Your task to perform on an android device: Open settings on Google Maps Image 0: 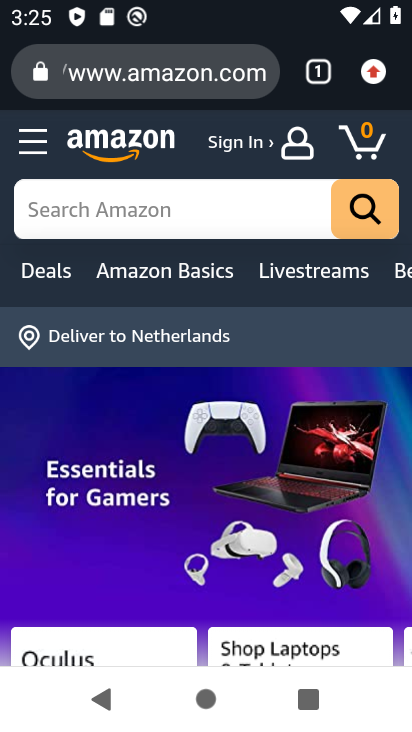
Step 0: click (376, 76)
Your task to perform on an android device: Open settings on Google Maps Image 1: 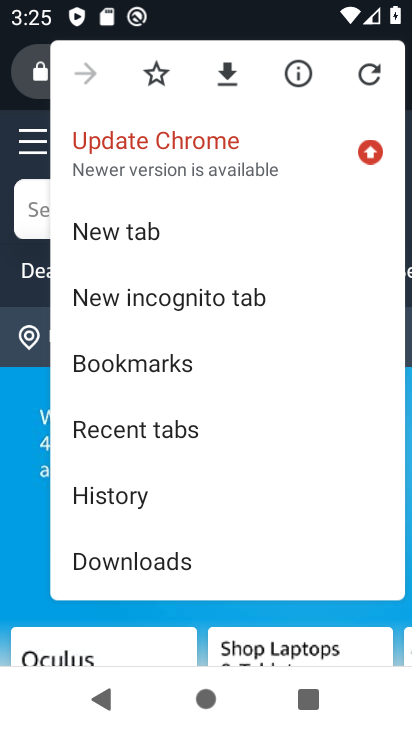
Step 1: drag from (230, 486) to (270, 197)
Your task to perform on an android device: Open settings on Google Maps Image 2: 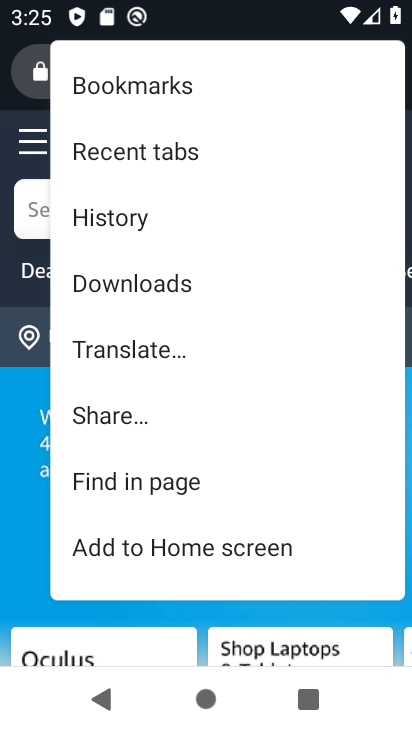
Step 2: drag from (174, 410) to (223, 163)
Your task to perform on an android device: Open settings on Google Maps Image 3: 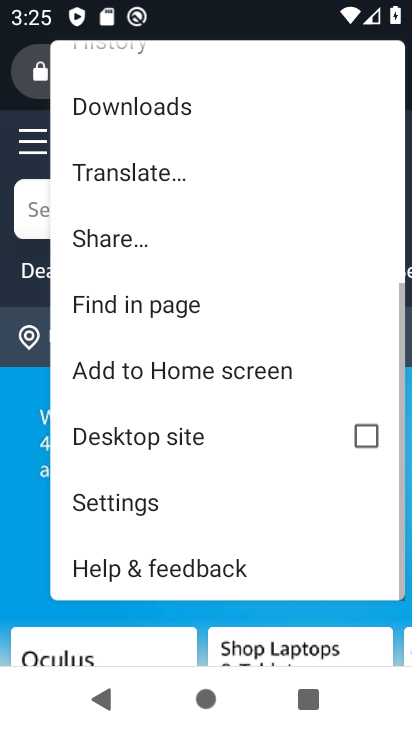
Step 3: click (172, 493)
Your task to perform on an android device: Open settings on Google Maps Image 4: 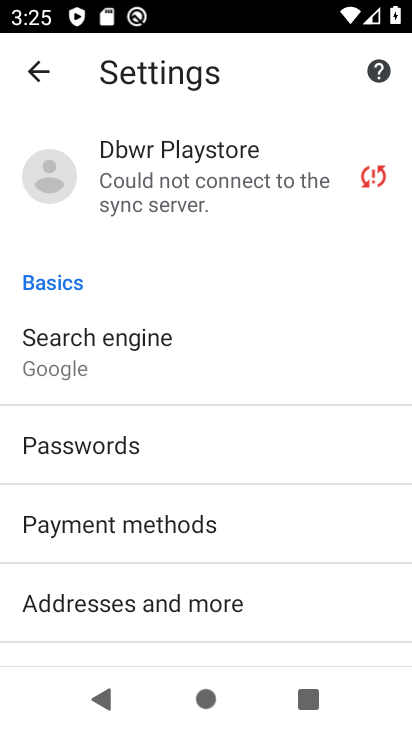
Step 4: task complete